Your task to perform on an android device: Do I have any events today? Image 0: 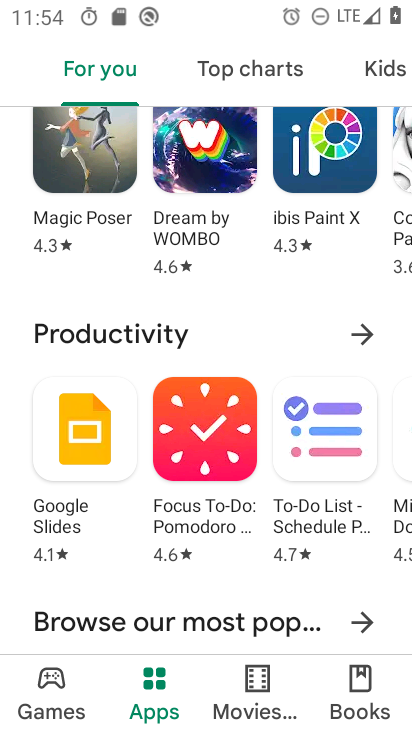
Step 0: press home button
Your task to perform on an android device: Do I have any events today? Image 1: 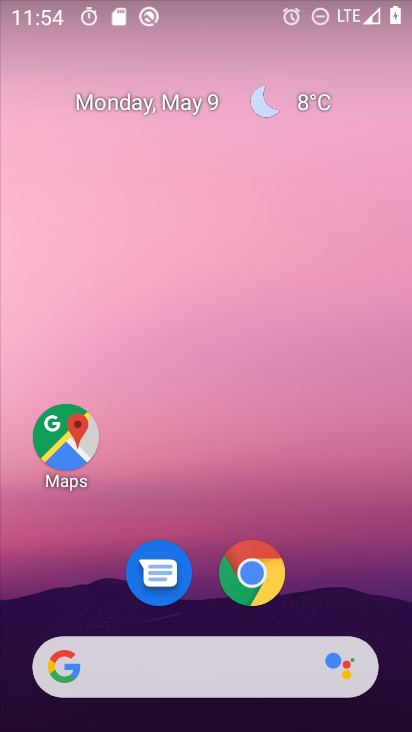
Step 1: drag from (350, 567) to (244, 66)
Your task to perform on an android device: Do I have any events today? Image 2: 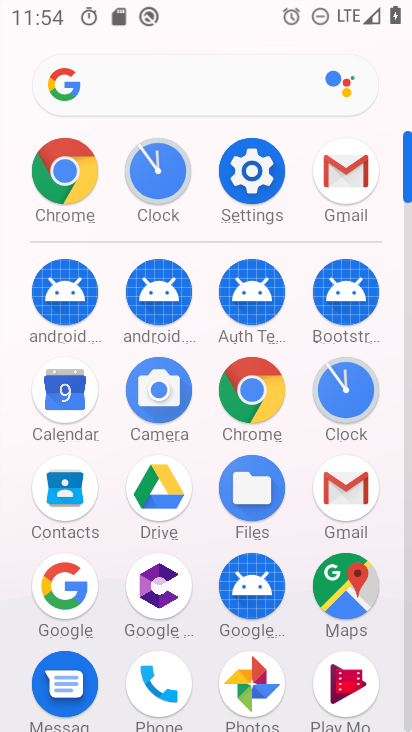
Step 2: click (77, 392)
Your task to perform on an android device: Do I have any events today? Image 3: 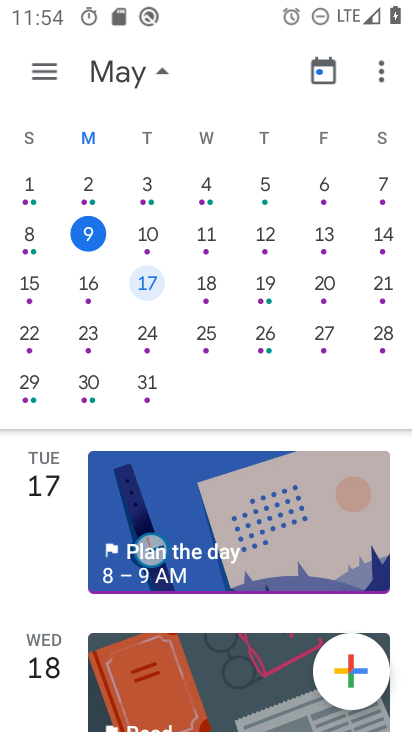
Step 3: click (96, 229)
Your task to perform on an android device: Do I have any events today? Image 4: 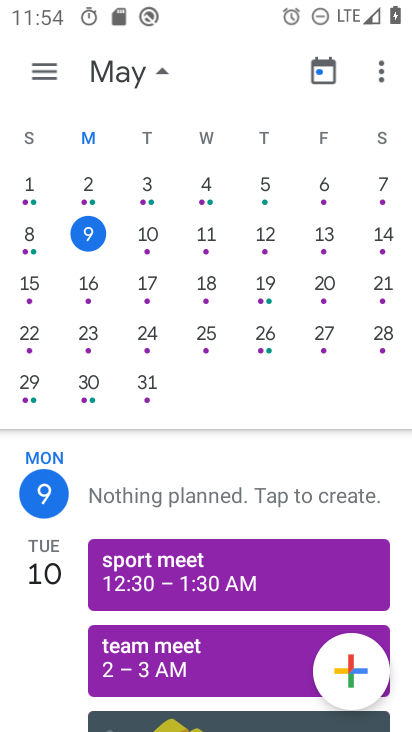
Step 4: task complete